Your task to perform on an android device: delete a single message in the gmail app Image 0: 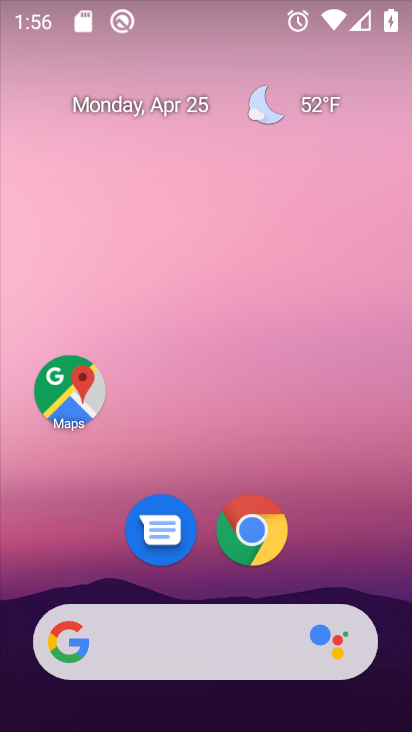
Step 0: drag from (365, 555) to (378, 128)
Your task to perform on an android device: delete a single message in the gmail app Image 1: 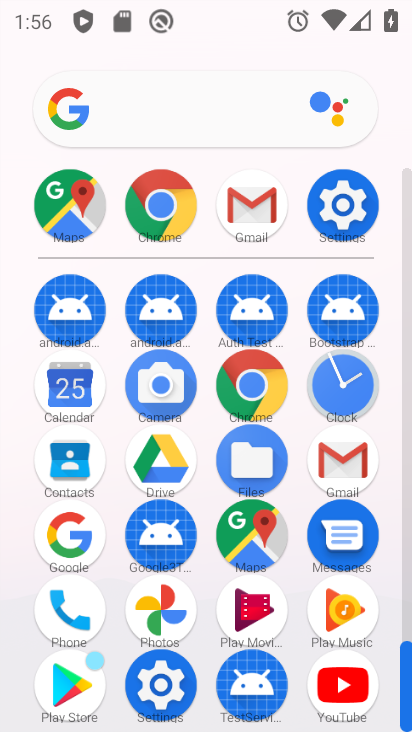
Step 1: click (356, 434)
Your task to perform on an android device: delete a single message in the gmail app Image 2: 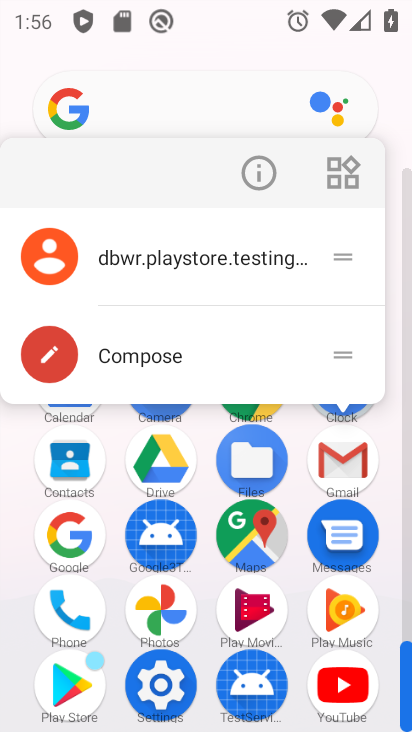
Step 2: click (365, 452)
Your task to perform on an android device: delete a single message in the gmail app Image 3: 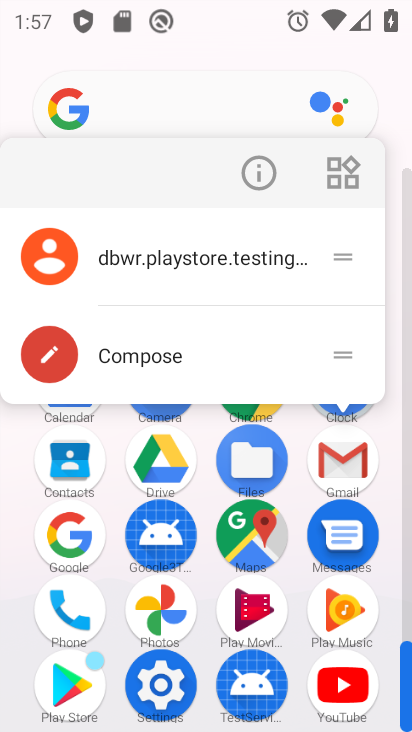
Step 3: click (344, 468)
Your task to perform on an android device: delete a single message in the gmail app Image 4: 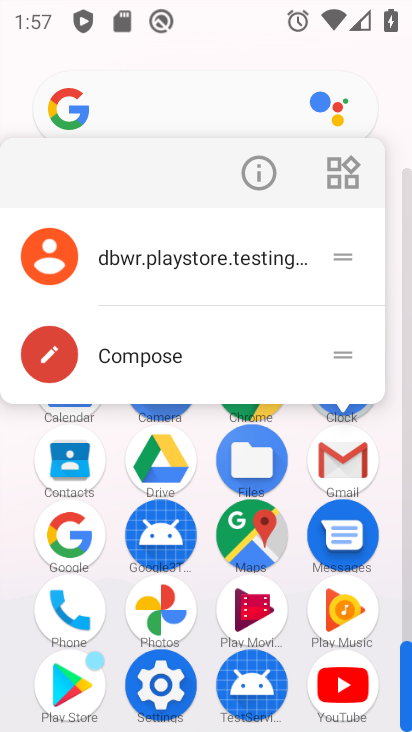
Step 4: click (349, 466)
Your task to perform on an android device: delete a single message in the gmail app Image 5: 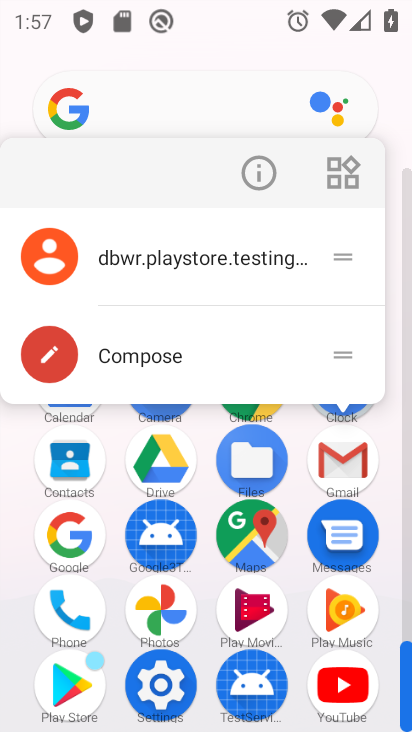
Step 5: click (342, 461)
Your task to perform on an android device: delete a single message in the gmail app Image 6: 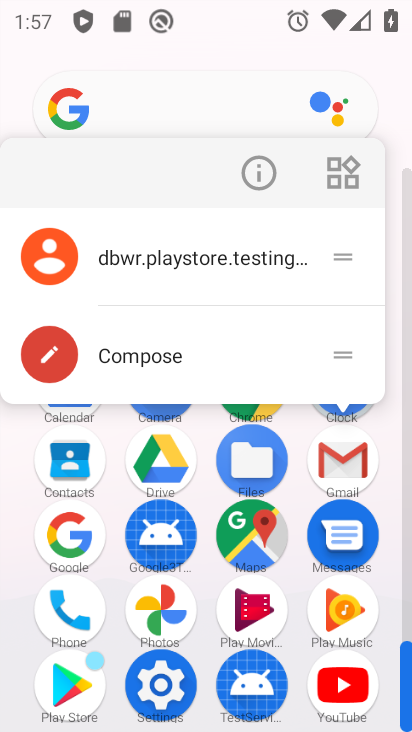
Step 6: click (321, 468)
Your task to perform on an android device: delete a single message in the gmail app Image 7: 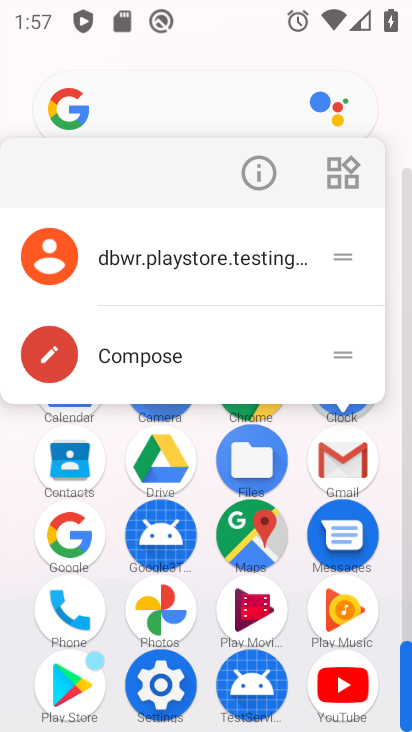
Step 7: click (318, 476)
Your task to perform on an android device: delete a single message in the gmail app Image 8: 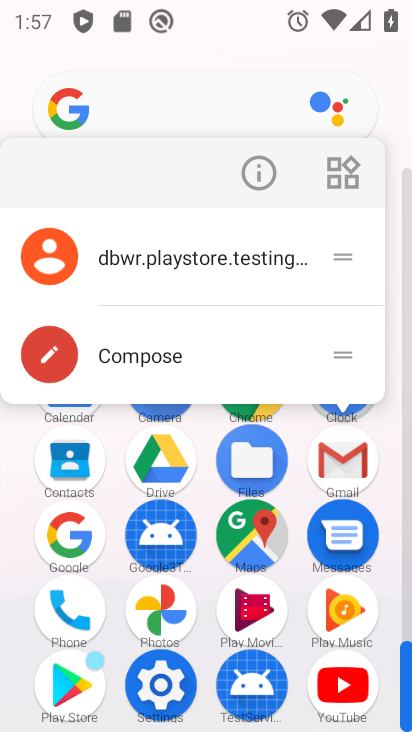
Step 8: click (313, 452)
Your task to perform on an android device: delete a single message in the gmail app Image 9: 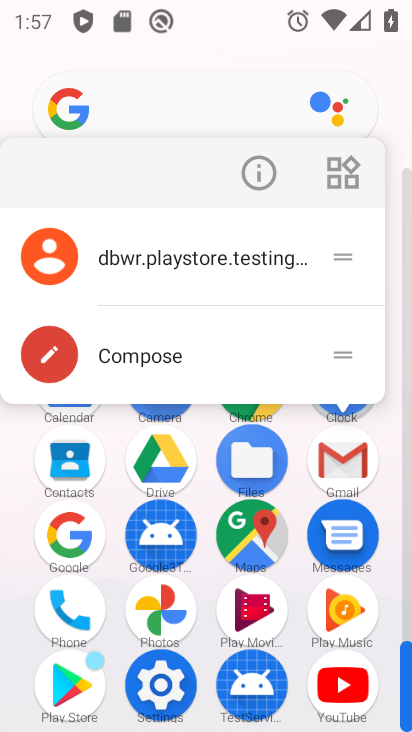
Step 9: click (325, 461)
Your task to perform on an android device: delete a single message in the gmail app Image 10: 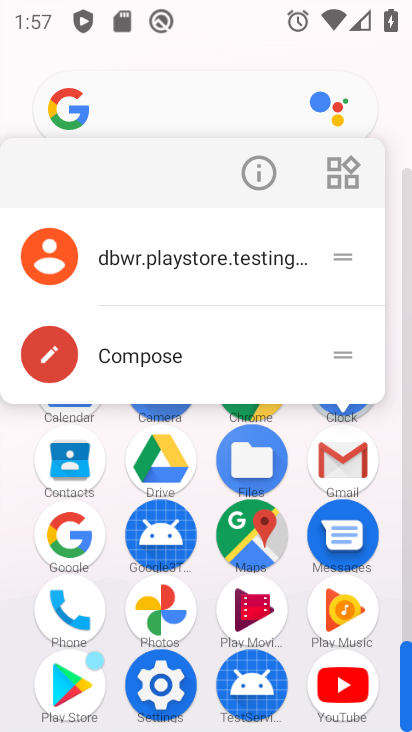
Step 10: click (334, 483)
Your task to perform on an android device: delete a single message in the gmail app Image 11: 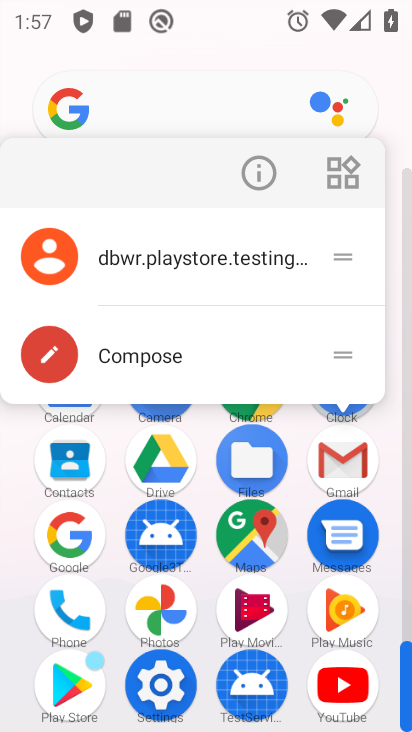
Step 11: click (356, 472)
Your task to perform on an android device: delete a single message in the gmail app Image 12: 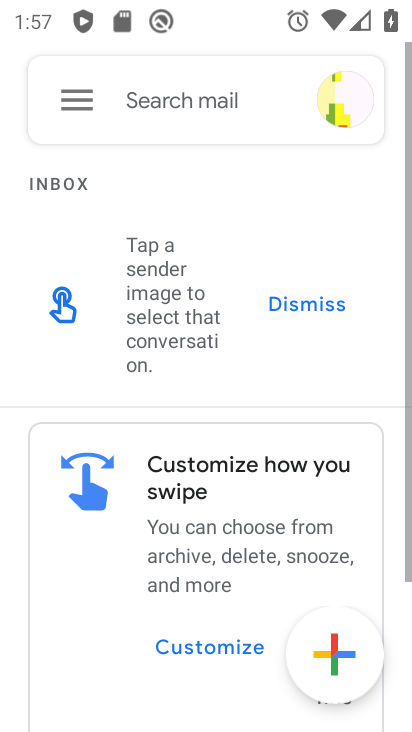
Step 12: click (74, 107)
Your task to perform on an android device: delete a single message in the gmail app Image 13: 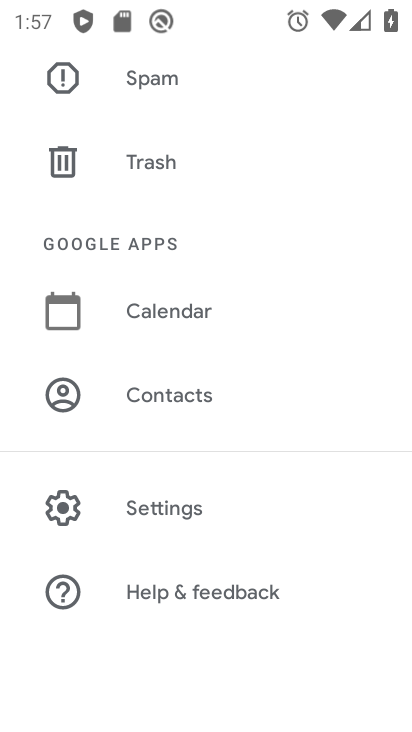
Step 13: drag from (182, 166) to (170, 508)
Your task to perform on an android device: delete a single message in the gmail app Image 14: 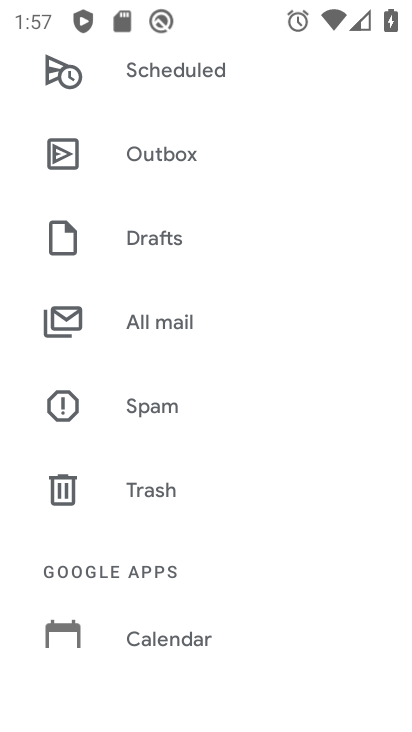
Step 14: click (172, 343)
Your task to perform on an android device: delete a single message in the gmail app Image 15: 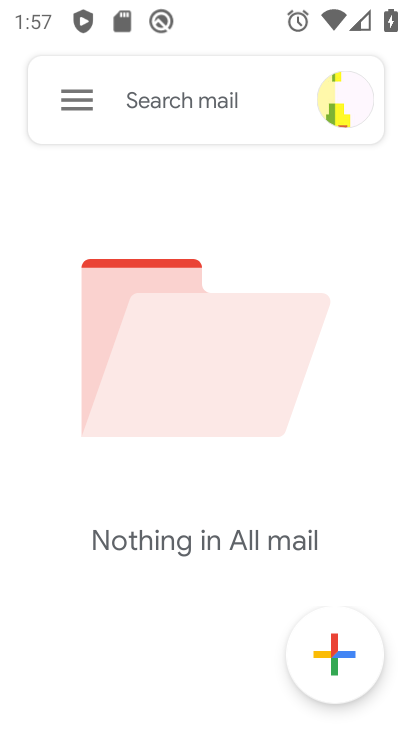
Step 15: task complete